Your task to perform on an android device: Open network settings Image 0: 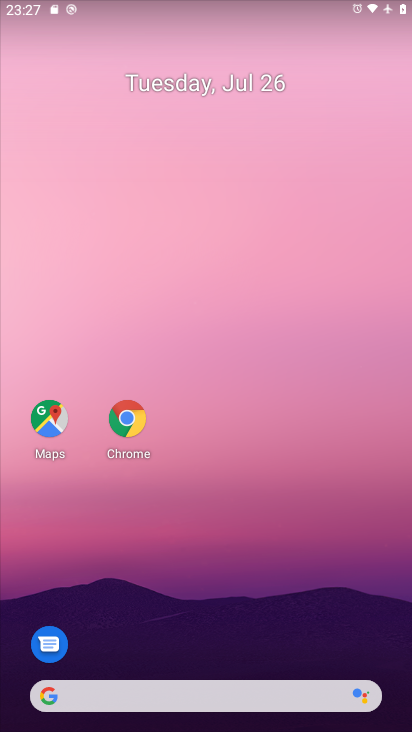
Step 0: drag from (248, 637) to (234, 156)
Your task to perform on an android device: Open network settings Image 1: 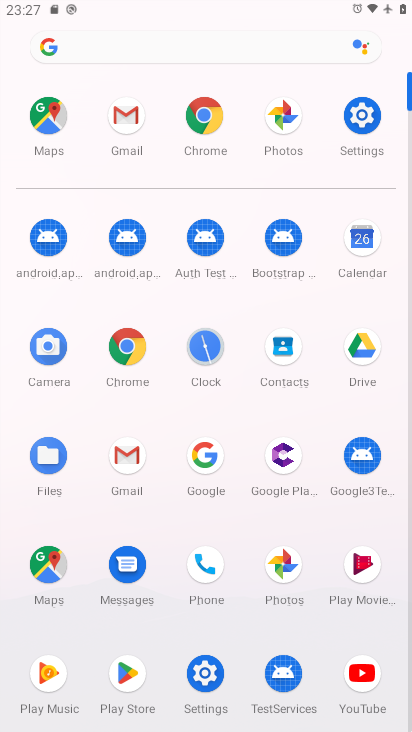
Step 1: click (351, 114)
Your task to perform on an android device: Open network settings Image 2: 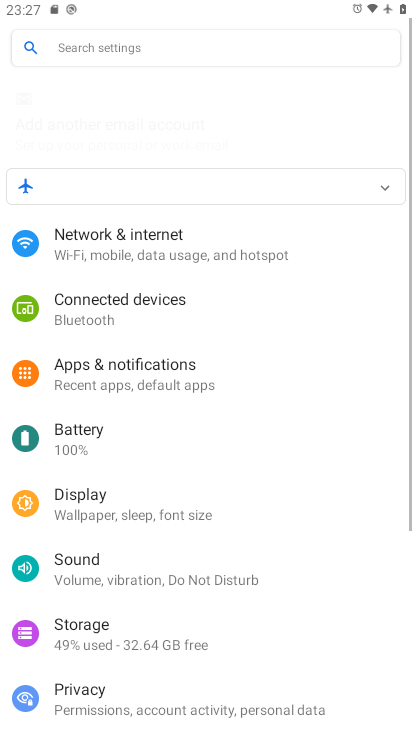
Step 2: click (169, 154)
Your task to perform on an android device: Open network settings Image 3: 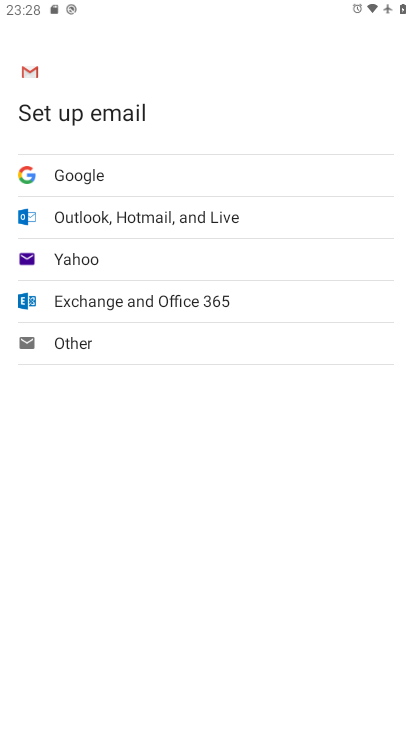
Step 3: task complete